Your task to perform on an android device: change the clock display to analog Image 0: 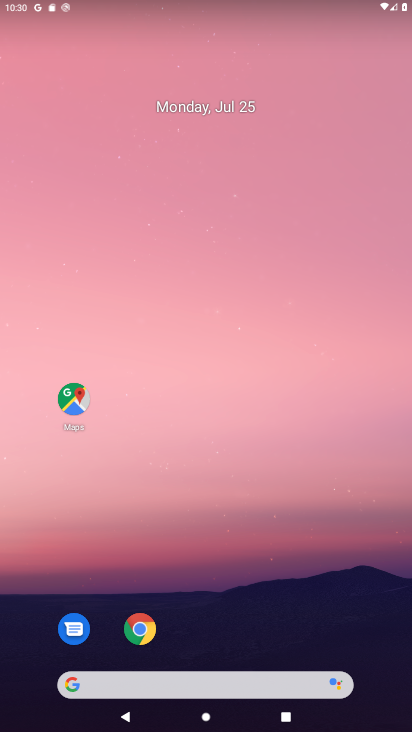
Step 0: drag from (176, 633) to (184, 76)
Your task to perform on an android device: change the clock display to analog Image 1: 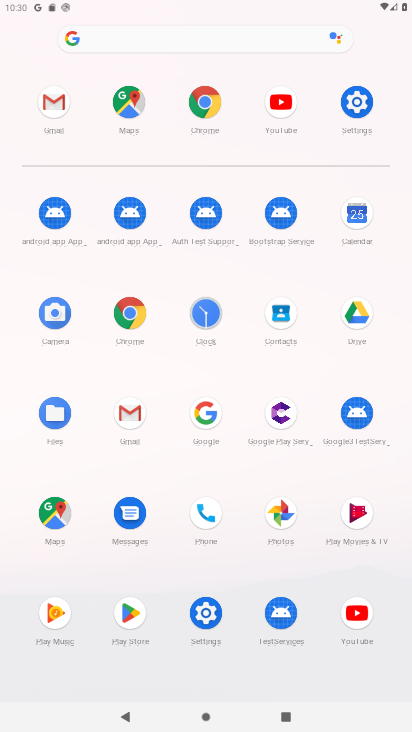
Step 1: click (200, 307)
Your task to perform on an android device: change the clock display to analog Image 2: 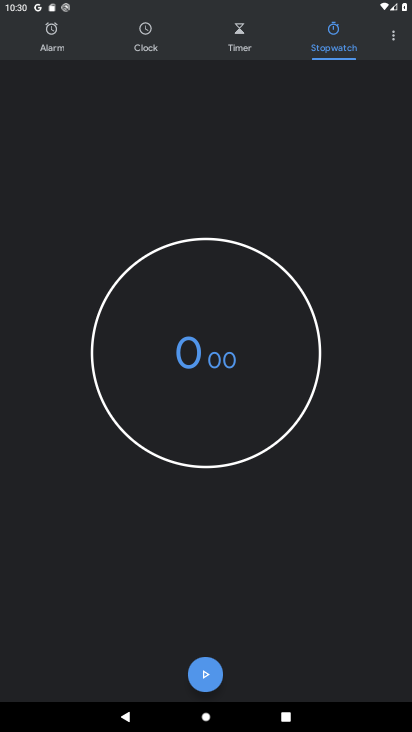
Step 2: click (400, 29)
Your task to perform on an android device: change the clock display to analog Image 3: 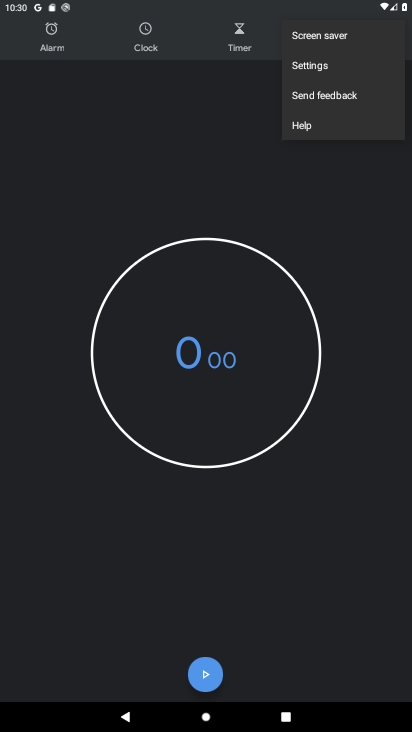
Step 3: click (329, 75)
Your task to perform on an android device: change the clock display to analog Image 4: 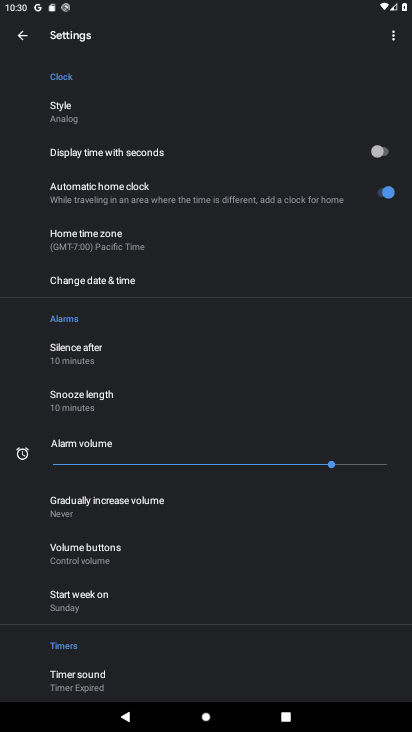
Step 4: task complete